Your task to perform on an android device: Open the Play Movies app and select the watchlist tab. Image 0: 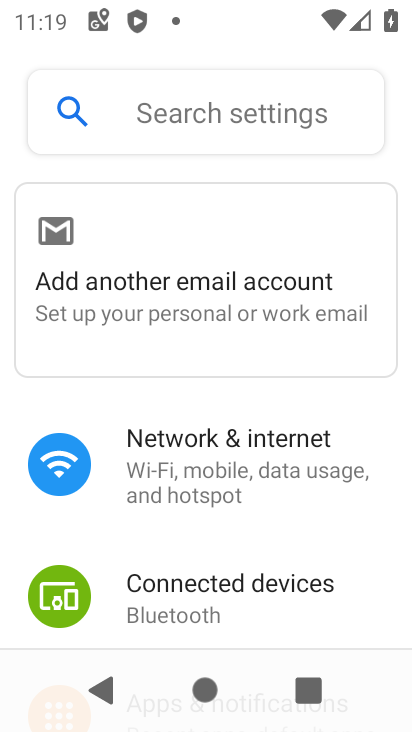
Step 0: press home button
Your task to perform on an android device: Open the Play Movies app and select the watchlist tab. Image 1: 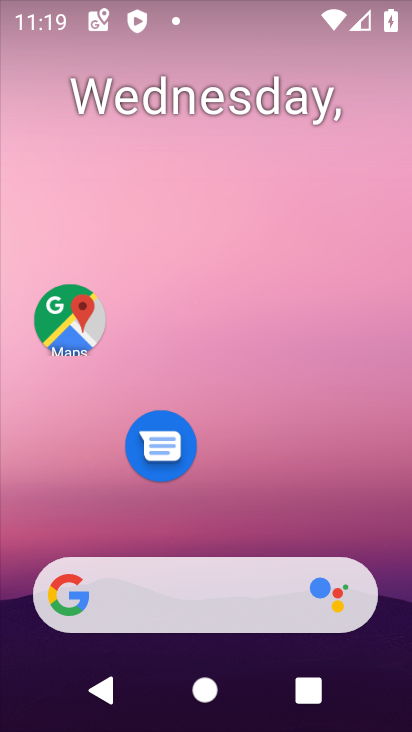
Step 1: drag from (274, 487) to (213, 112)
Your task to perform on an android device: Open the Play Movies app and select the watchlist tab. Image 2: 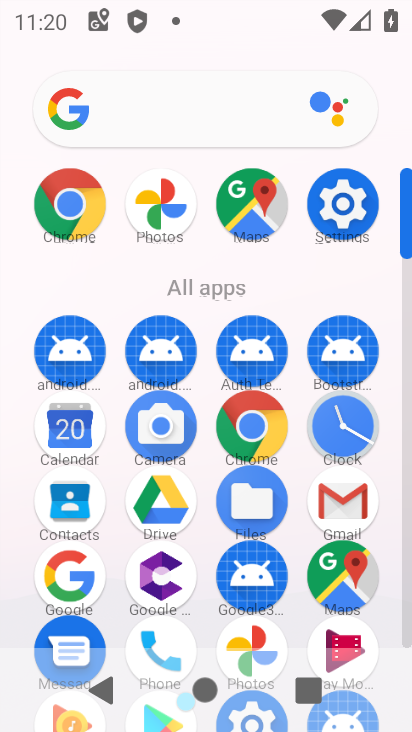
Step 2: drag from (298, 599) to (303, 308)
Your task to perform on an android device: Open the Play Movies app and select the watchlist tab. Image 3: 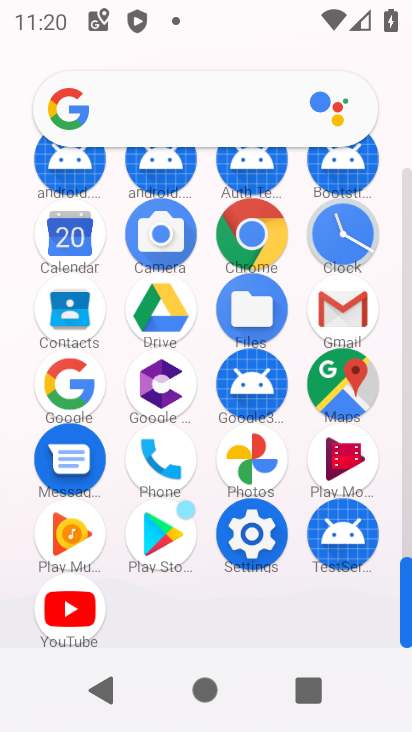
Step 3: click (331, 462)
Your task to perform on an android device: Open the Play Movies app and select the watchlist tab. Image 4: 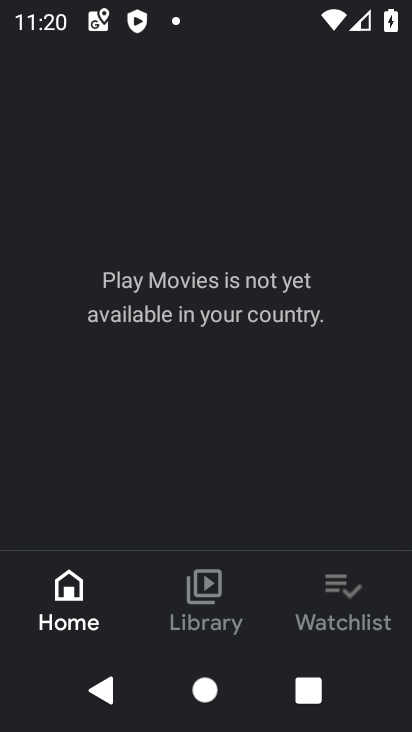
Step 4: click (335, 603)
Your task to perform on an android device: Open the Play Movies app and select the watchlist tab. Image 5: 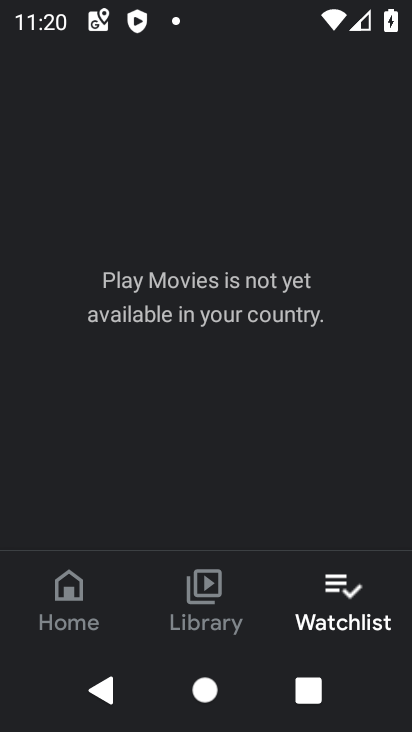
Step 5: task complete